Your task to perform on an android device: Show me recent news Image 0: 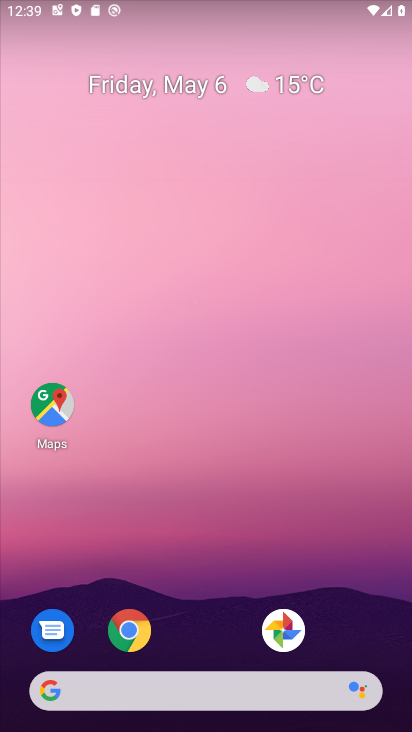
Step 0: drag from (214, 526) to (229, 3)
Your task to perform on an android device: Show me recent news Image 1: 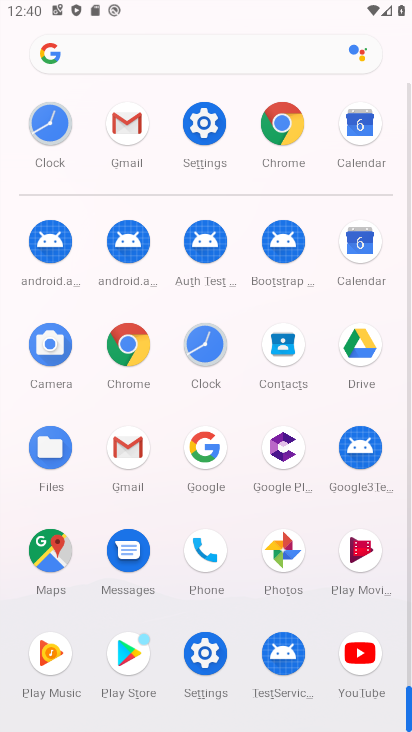
Step 1: click (267, 131)
Your task to perform on an android device: Show me recent news Image 2: 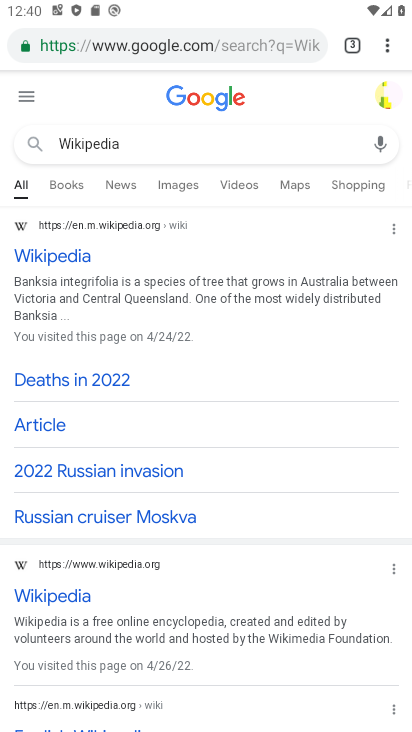
Step 2: click (246, 145)
Your task to perform on an android device: Show me recent news Image 3: 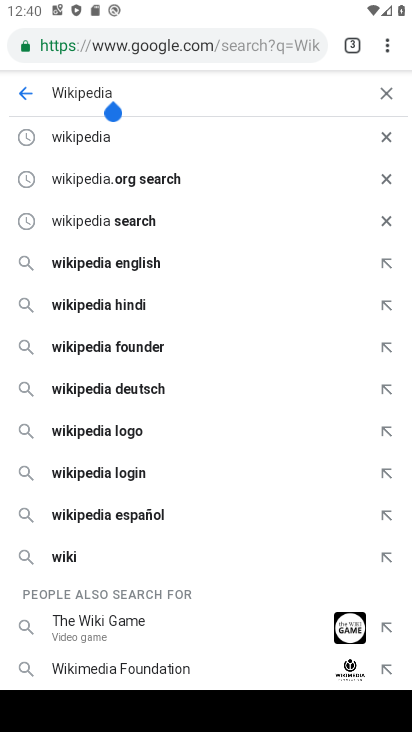
Step 3: click (393, 93)
Your task to perform on an android device: Show me recent news Image 4: 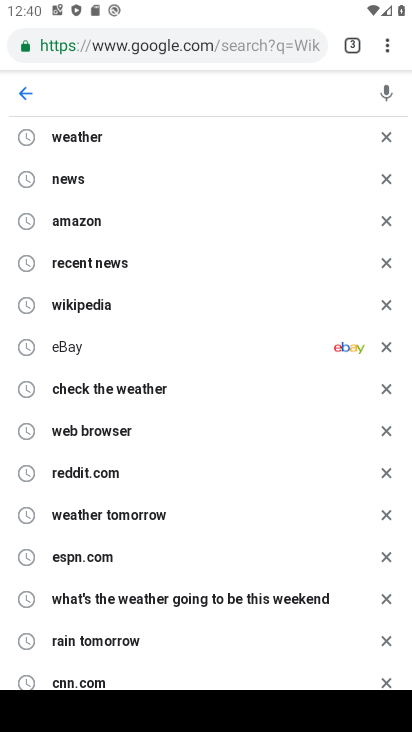
Step 4: click (362, 95)
Your task to perform on an android device: Show me recent news Image 5: 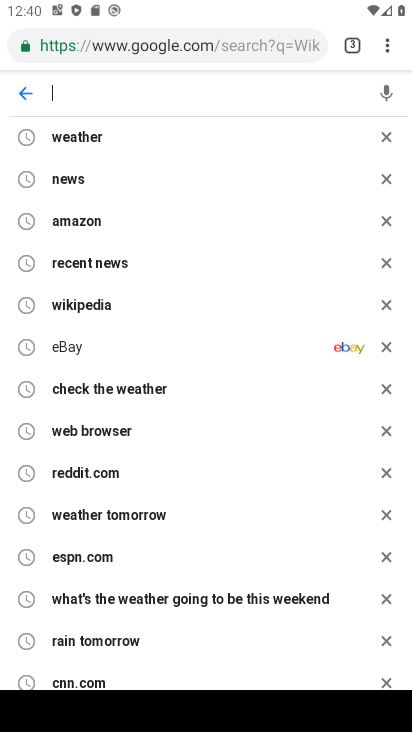
Step 5: type "Show me recent news"
Your task to perform on an android device: Show me recent news Image 6: 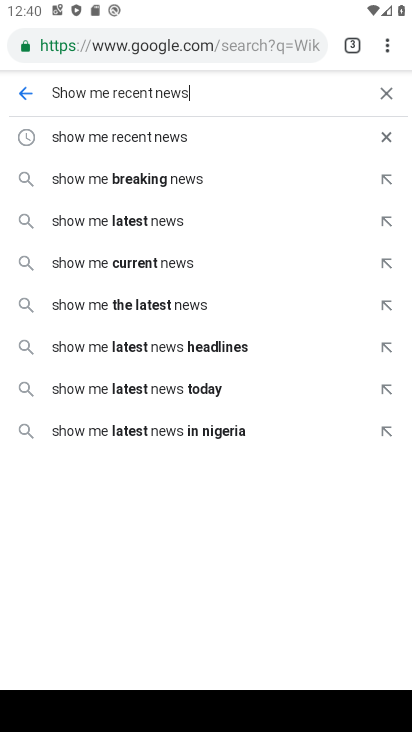
Step 6: click (162, 136)
Your task to perform on an android device: Show me recent news Image 7: 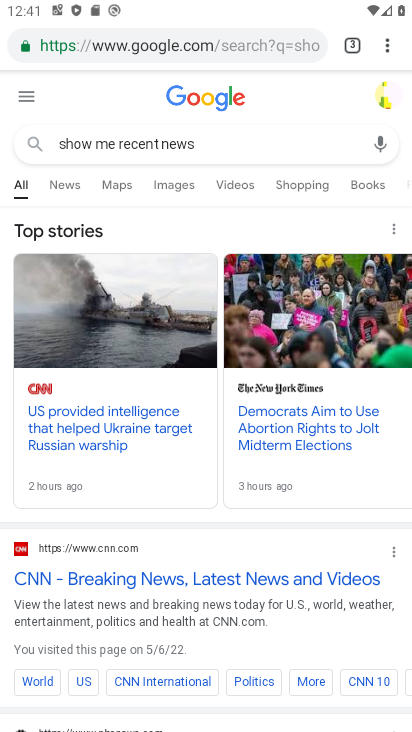
Step 7: task complete